Your task to perform on an android device: Go to Reddit.com Image 0: 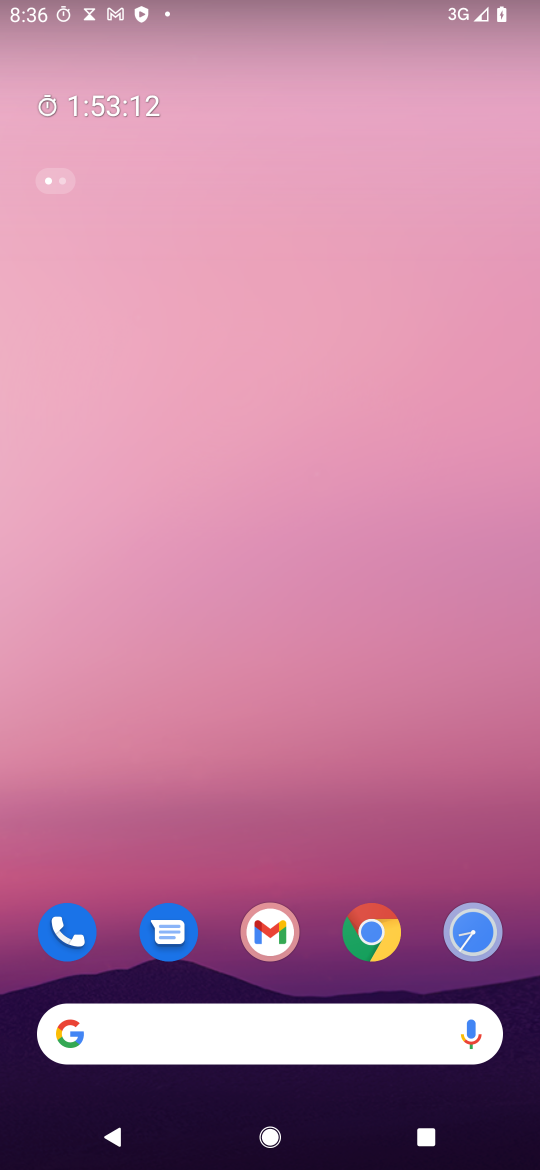
Step 0: drag from (358, 760) to (383, 82)
Your task to perform on an android device: Go to Reddit.com Image 1: 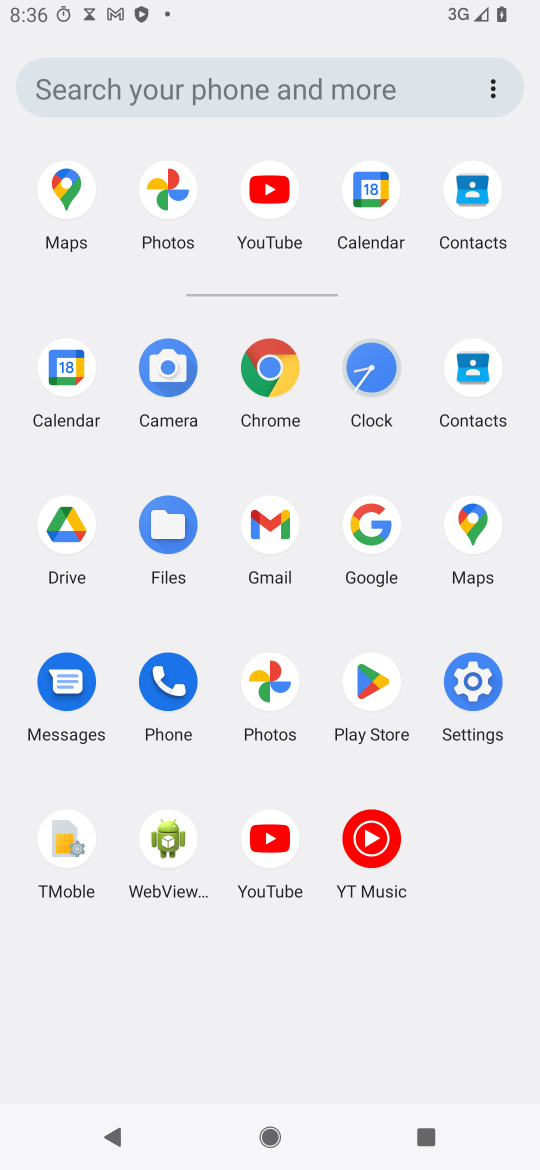
Step 1: click (287, 95)
Your task to perform on an android device: Go to Reddit.com Image 2: 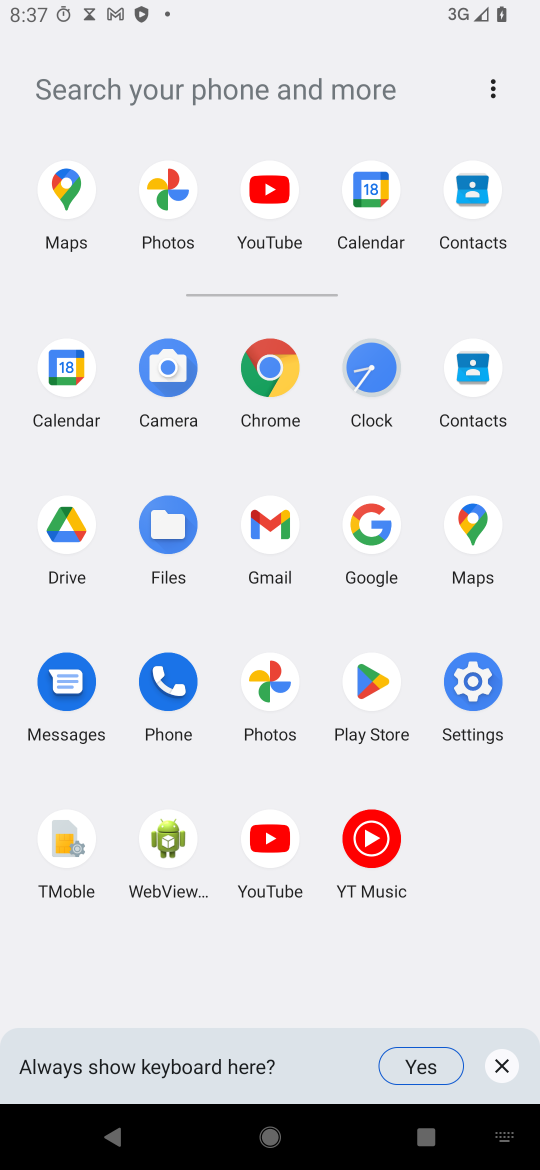
Step 2: click (269, 371)
Your task to perform on an android device: Go to Reddit.com Image 3: 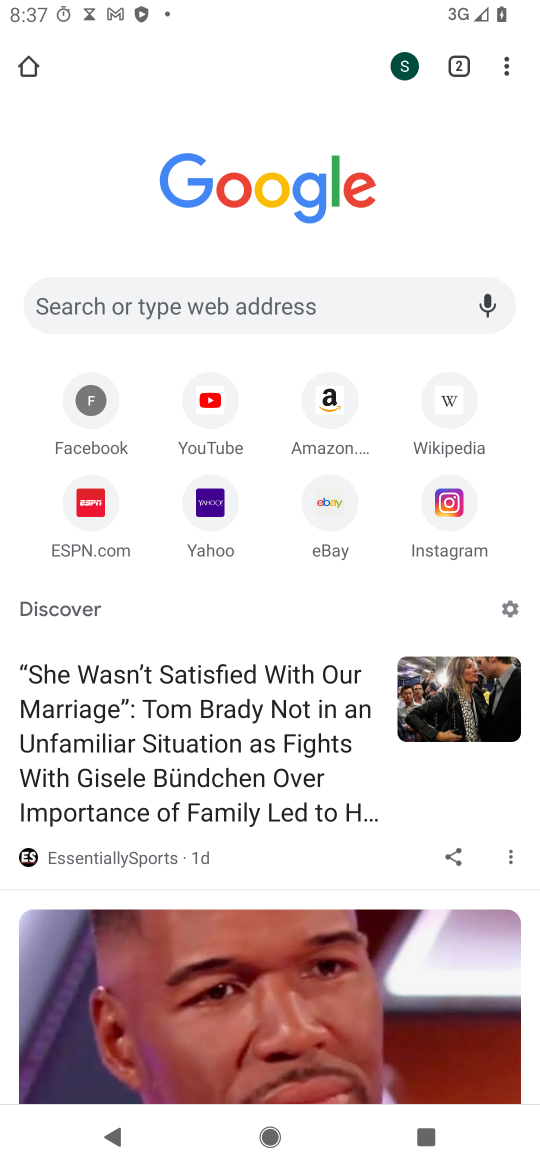
Step 3: click (162, 299)
Your task to perform on an android device: Go to Reddit.com Image 4: 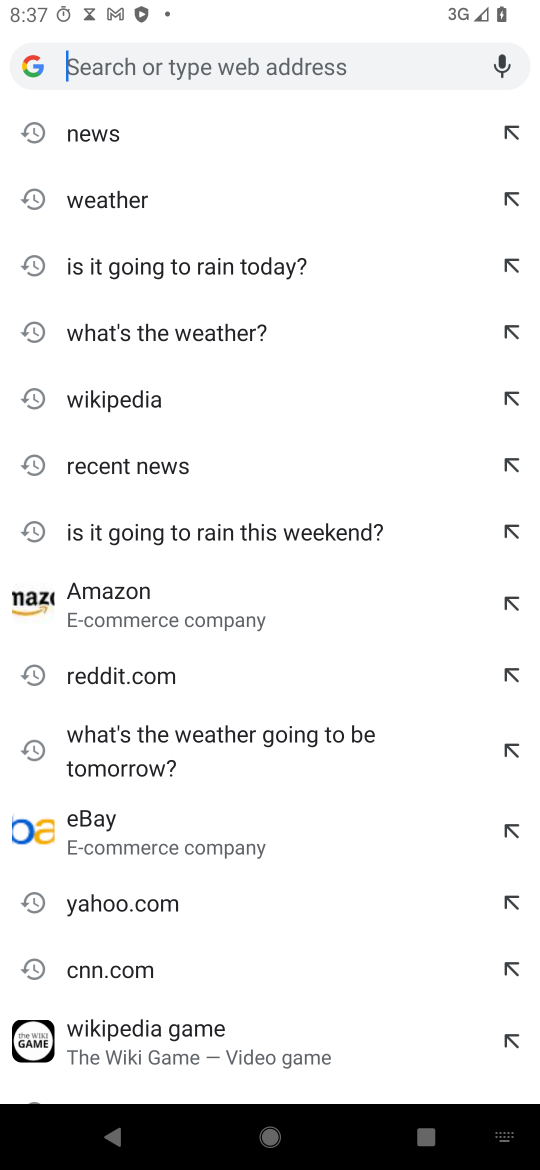
Step 4: type " Reddit.com"
Your task to perform on an android device: Go to Reddit.com Image 5: 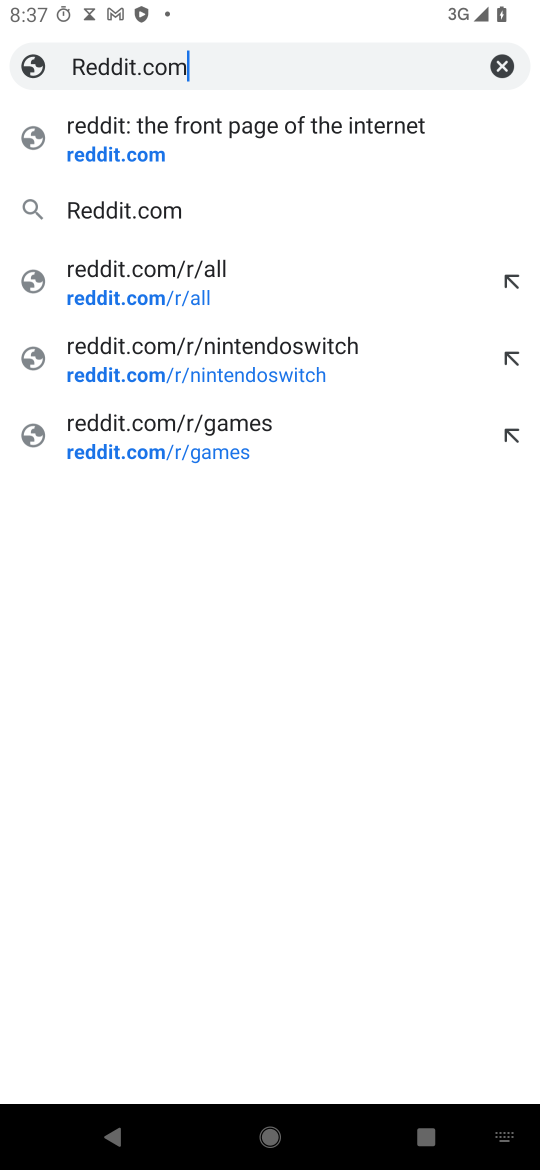
Step 5: click (109, 144)
Your task to perform on an android device: Go to Reddit.com Image 6: 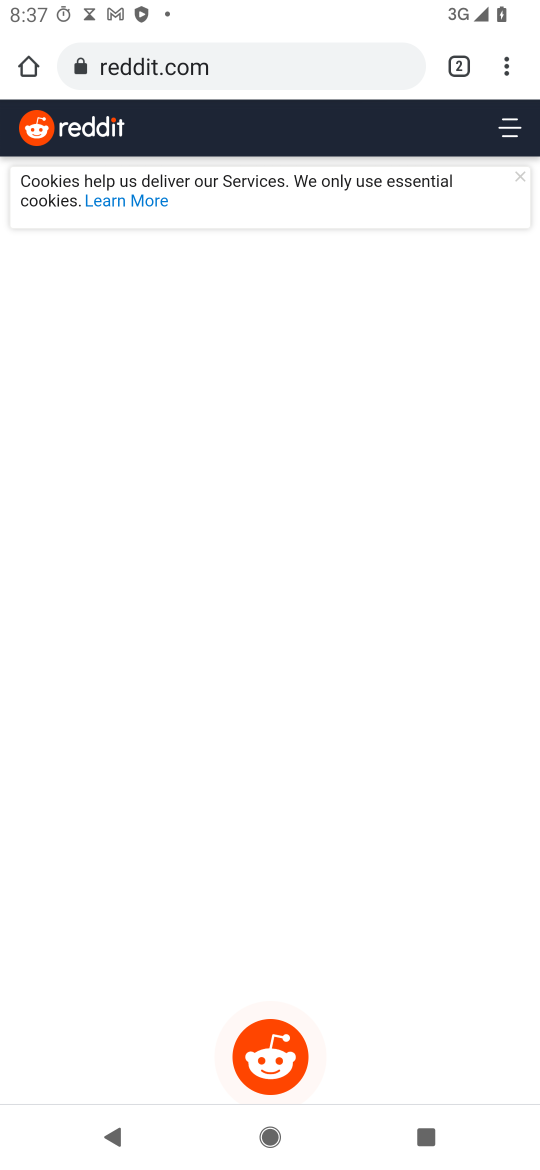
Step 6: task complete